Your task to perform on an android device: Search for seafood restaurants on Google Maps Image 0: 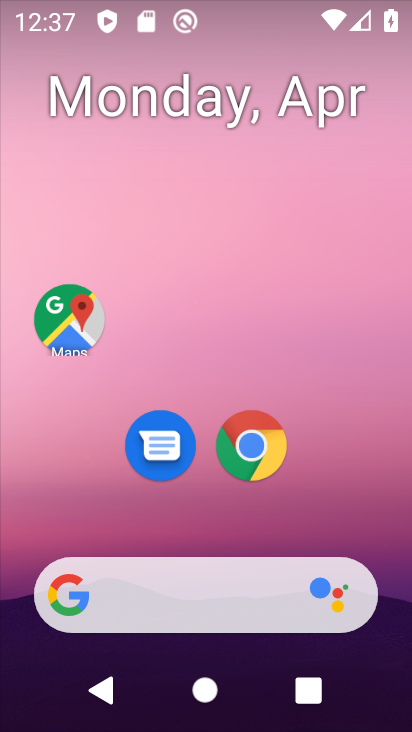
Step 0: drag from (374, 520) to (371, 101)
Your task to perform on an android device: Search for seafood restaurants on Google Maps Image 1: 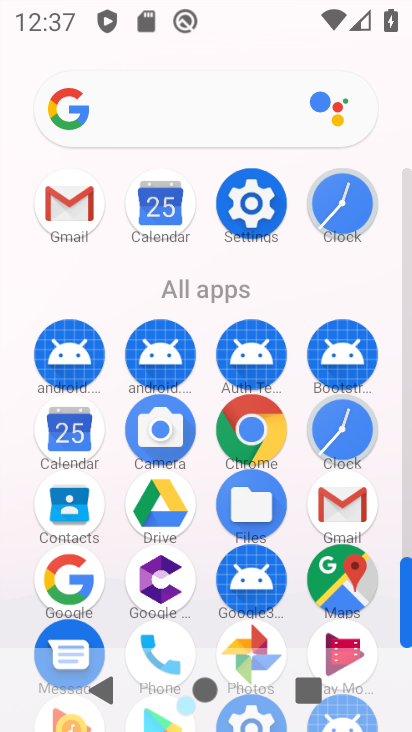
Step 1: click (337, 591)
Your task to perform on an android device: Search for seafood restaurants on Google Maps Image 2: 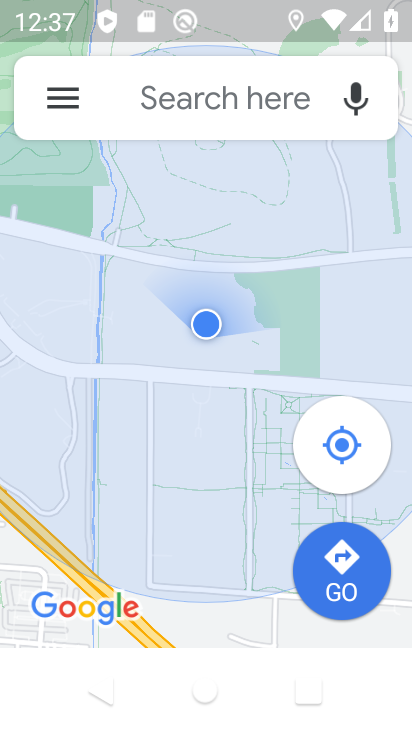
Step 2: click (221, 112)
Your task to perform on an android device: Search for seafood restaurants on Google Maps Image 3: 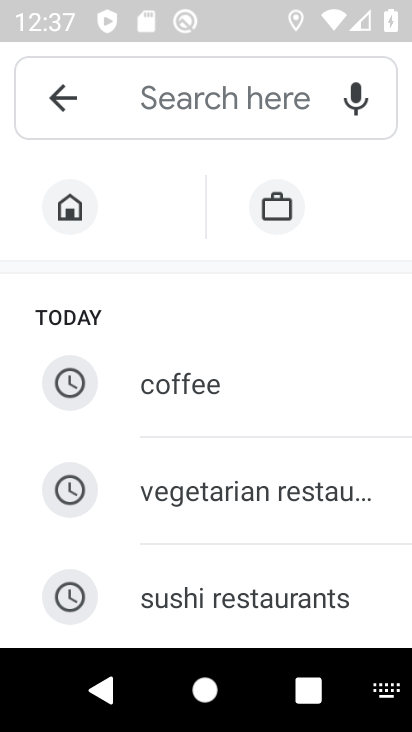
Step 3: type "seafood restaurants"
Your task to perform on an android device: Search for seafood restaurants on Google Maps Image 4: 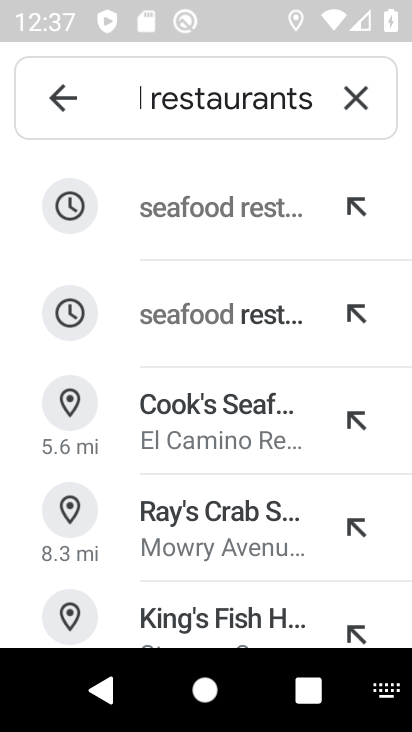
Step 4: click (249, 208)
Your task to perform on an android device: Search for seafood restaurants on Google Maps Image 5: 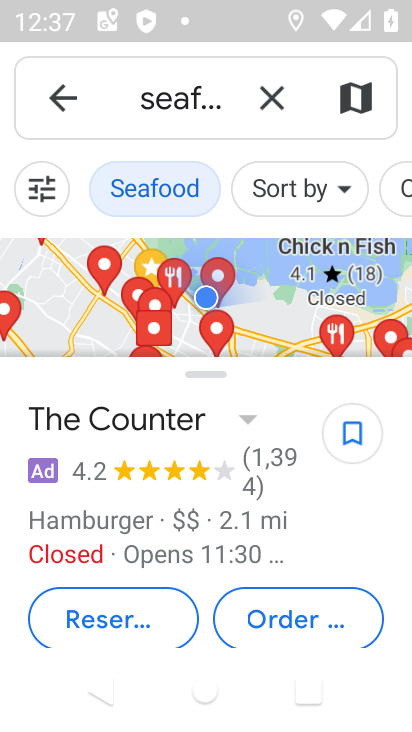
Step 5: task complete